Your task to perform on an android device: Show me the alarms in the clock app Image 0: 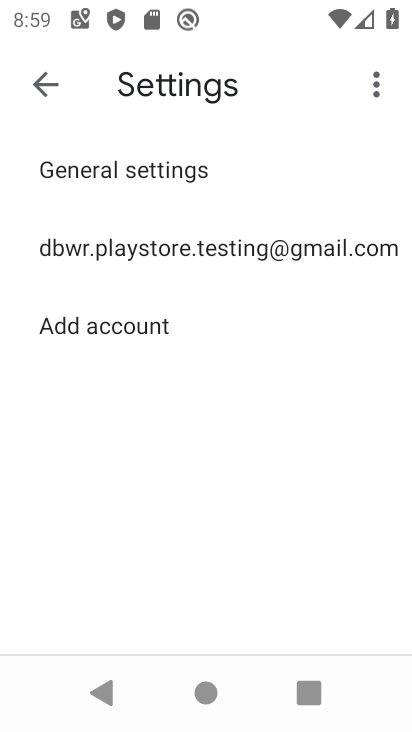
Step 0: press home button
Your task to perform on an android device: Show me the alarms in the clock app Image 1: 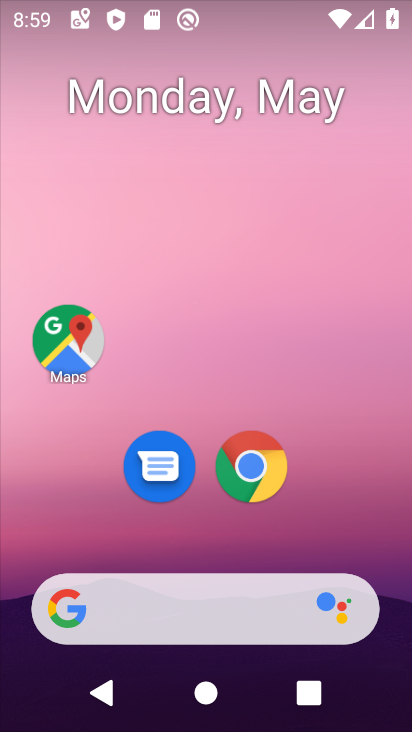
Step 1: drag from (213, 630) to (200, 116)
Your task to perform on an android device: Show me the alarms in the clock app Image 2: 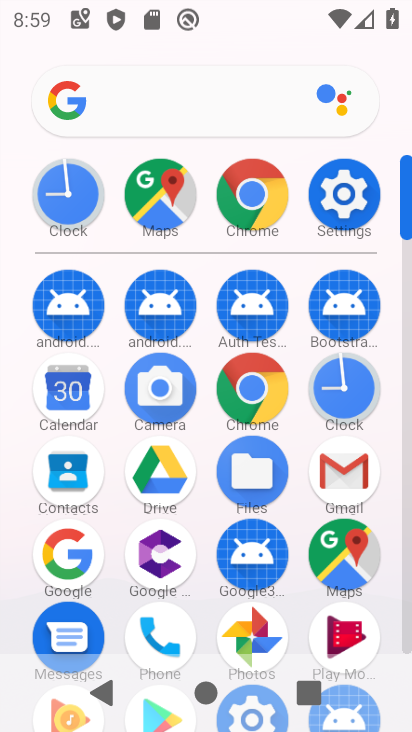
Step 2: click (250, 181)
Your task to perform on an android device: Show me the alarms in the clock app Image 3: 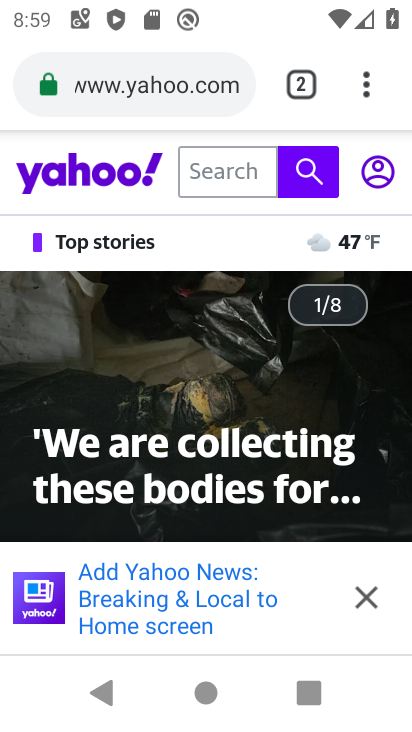
Step 3: press home button
Your task to perform on an android device: Show me the alarms in the clock app Image 4: 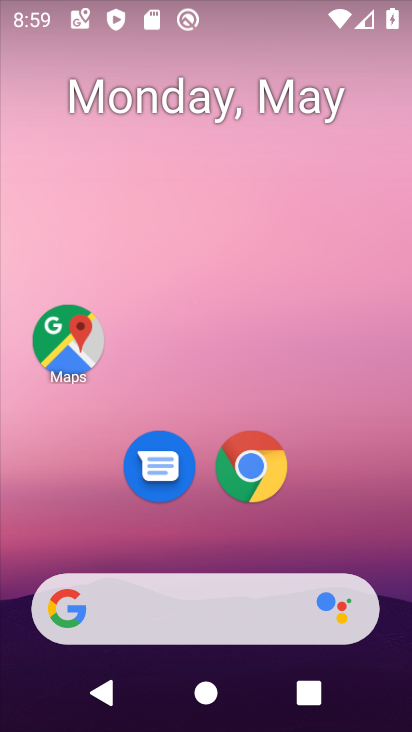
Step 4: drag from (258, 664) to (216, 435)
Your task to perform on an android device: Show me the alarms in the clock app Image 5: 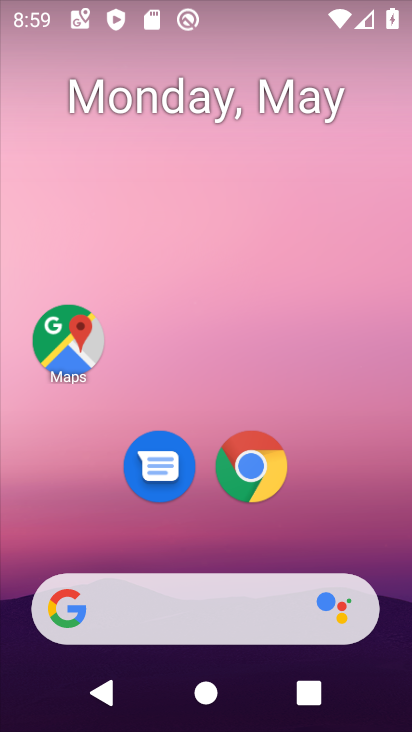
Step 5: drag from (277, 658) to (262, 144)
Your task to perform on an android device: Show me the alarms in the clock app Image 6: 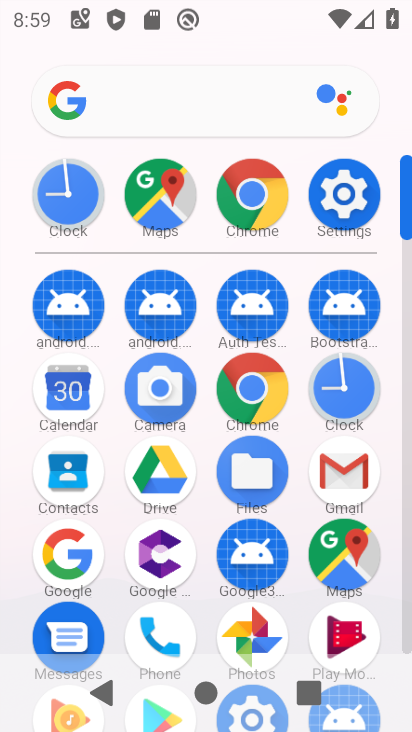
Step 6: click (342, 379)
Your task to perform on an android device: Show me the alarms in the clock app Image 7: 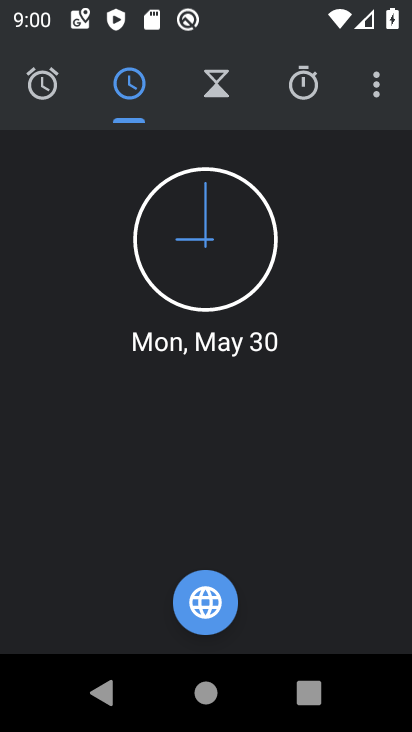
Step 7: click (55, 101)
Your task to perform on an android device: Show me the alarms in the clock app Image 8: 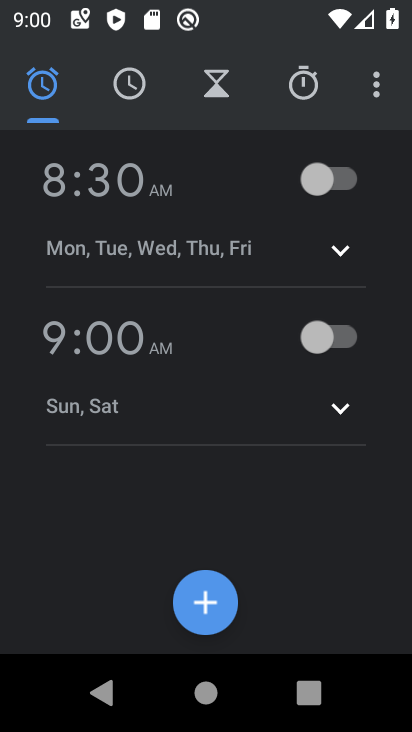
Step 8: task complete